Your task to perform on an android device: Open my contact list Image 0: 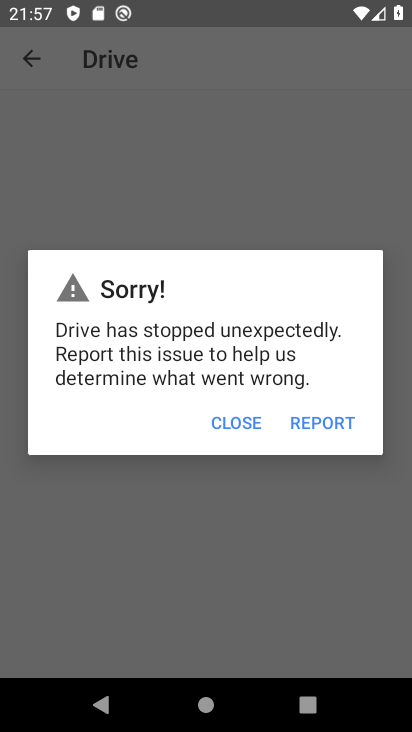
Step 0: press home button
Your task to perform on an android device: Open my contact list Image 1: 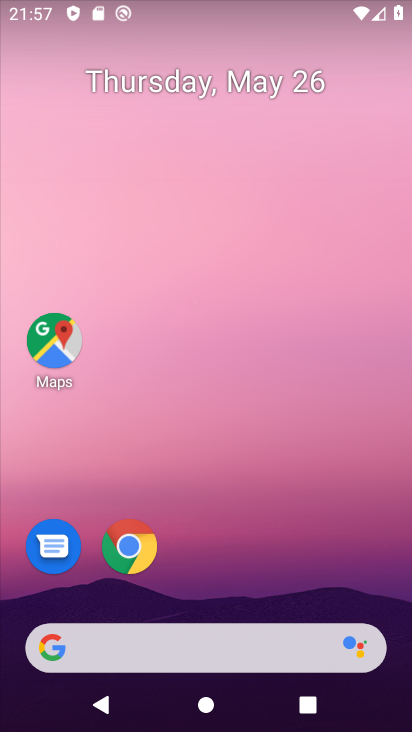
Step 1: drag from (289, 568) to (390, 326)
Your task to perform on an android device: Open my contact list Image 2: 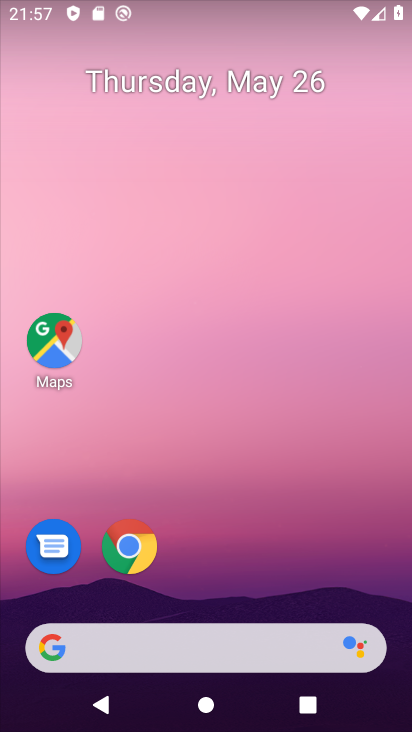
Step 2: drag from (307, 498) to (347, 237)
Your task to perform on an android device: Open my contact list Image 3: 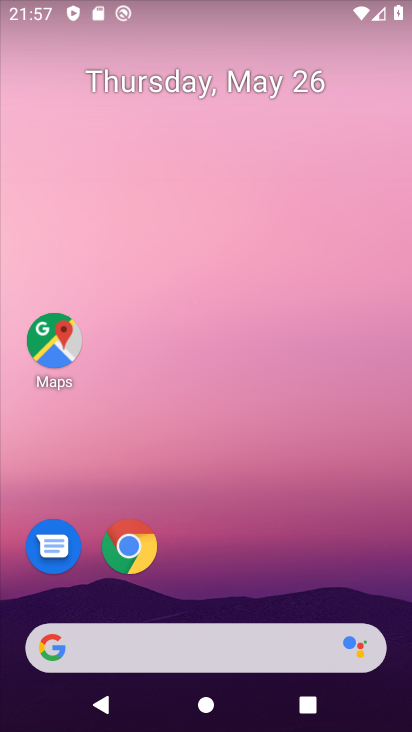
Step 3: drag from (243, 589) to (334, 201)
Your task to perform on an android device: Open my contact list Image 4: 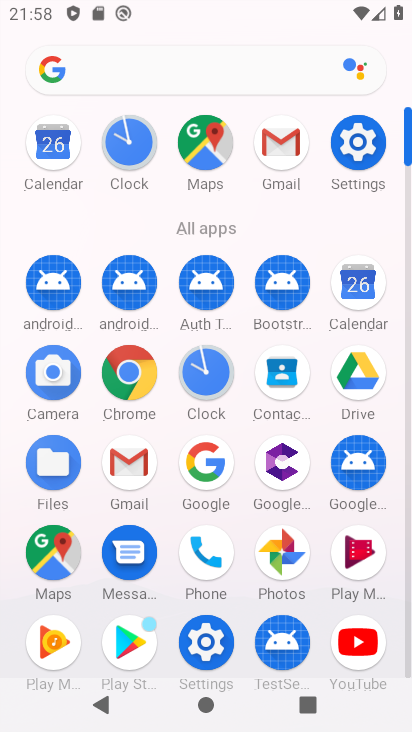
Step 4: click (275, 380)
Your task to perform on an android device: Open my contact list Image 5: 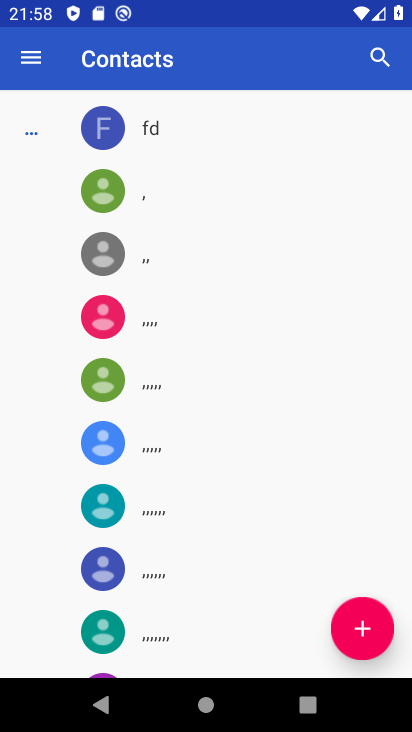
Step 5: task complete